Your task to perform on an android device: turn notification dots on Image 0: 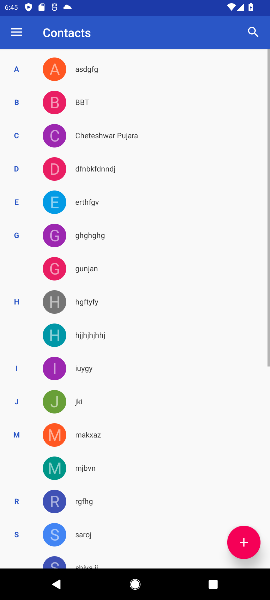
Step 0: press home button
Your task to perform on an android device: turn notification dots on Image 1: 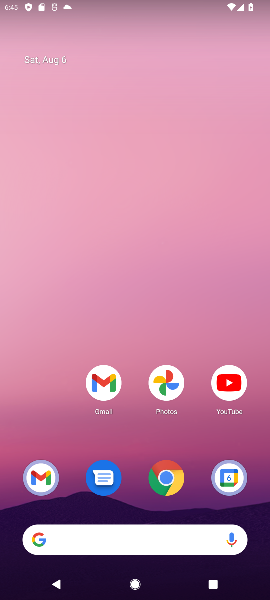
Step 1: drag from (139, 324) to (142, 62)
Your task to perform on an android device: turn notification dots on Image 2: 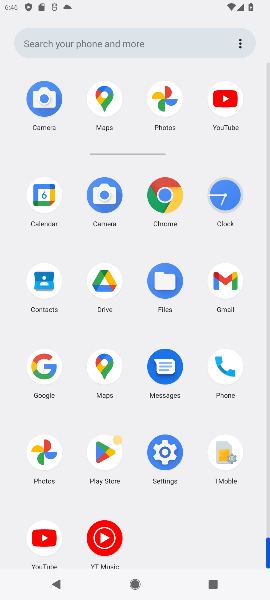
Step 2: click (161, 457)
Your task to perform on an android device: turn notification dots on Image 3: 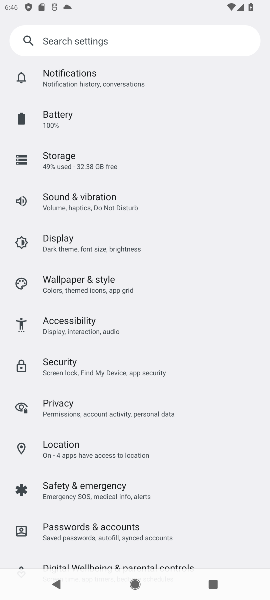
Step 3: click (49, 82)
Your task to perform on an android device: turn notification dots on Image 4: 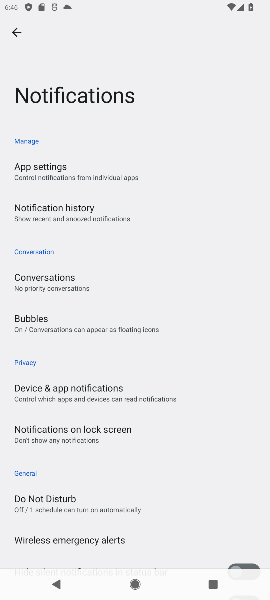
Step 4: task complete